Your task to perform on an android device: See recent photos Image 0: 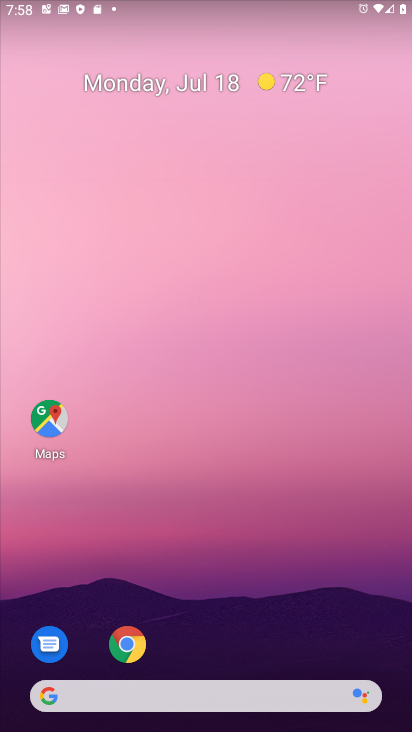
Step 0: drag from (281, 512) to (164, 5)
Your task to perform on an android device: See recent photos Image 1: 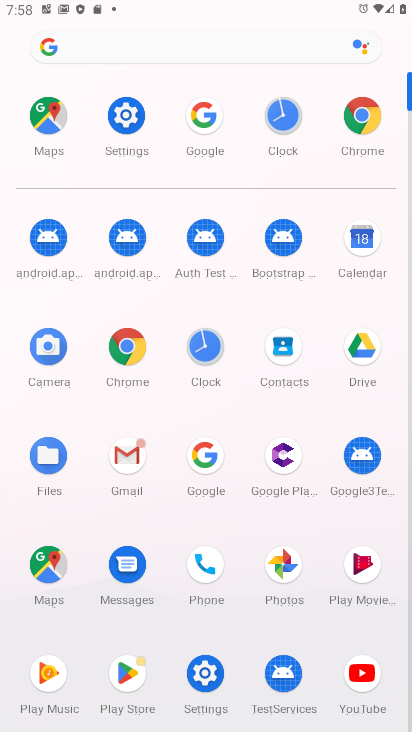
Step 1: click (201, 458)
Your task to perform on an android device: See recent photos Image 2: 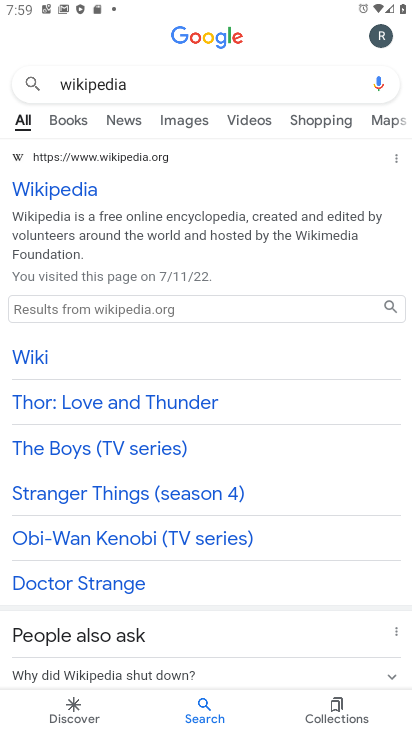
Step 2: press back button
Your task to perform on an android device: See recent photos Image 3: 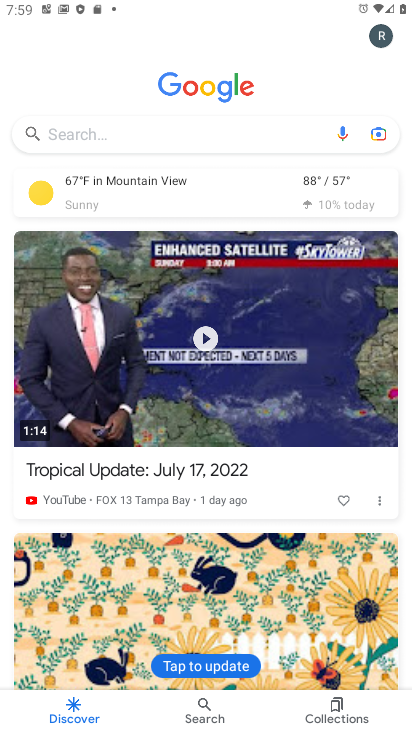
Step 3: click (94, 144)
Your task to perform on an android device: See recent photos Image 4: 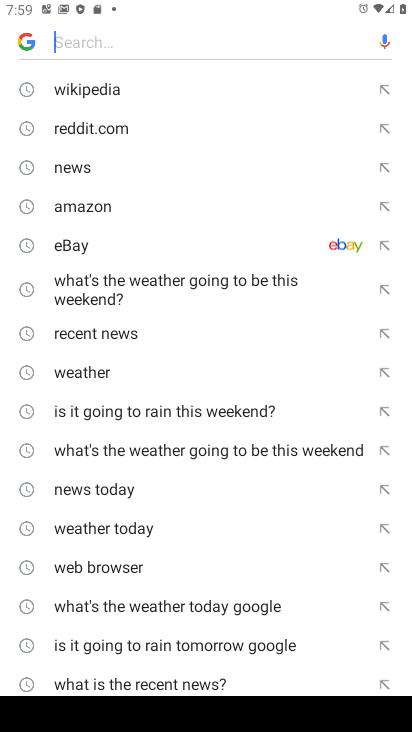
Step 4: click (95, 348)
Your task to perform on an android device: See recent photos Image 5: 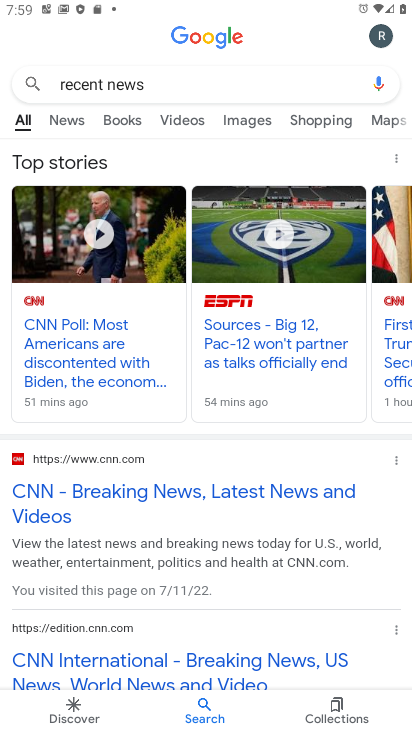
Step 5: task complete